Your task to perform on an android device: turn smart compose on in the gmail app Image 0: 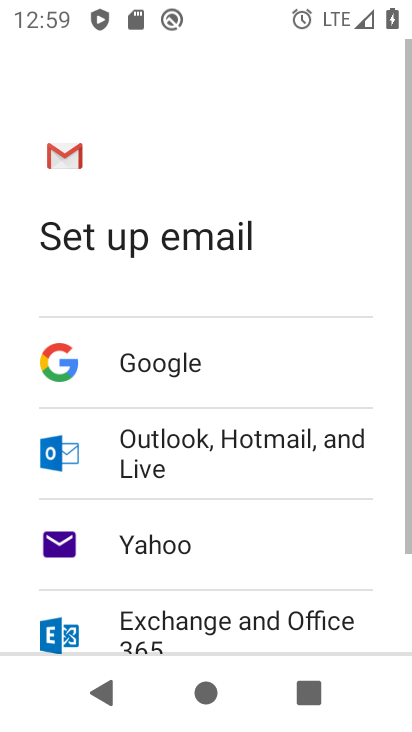
Step 0: press home button
Your task to perform on an android device: turn smart compose on in the gmail app Image 1: 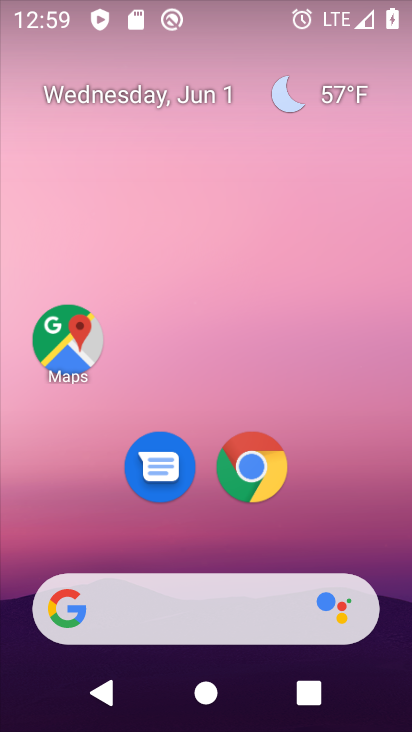
Step 1: drag from (376, 539) to (356, 153)
Your task to perform on an android device: turn smart compose on in the gmail app Image 2: 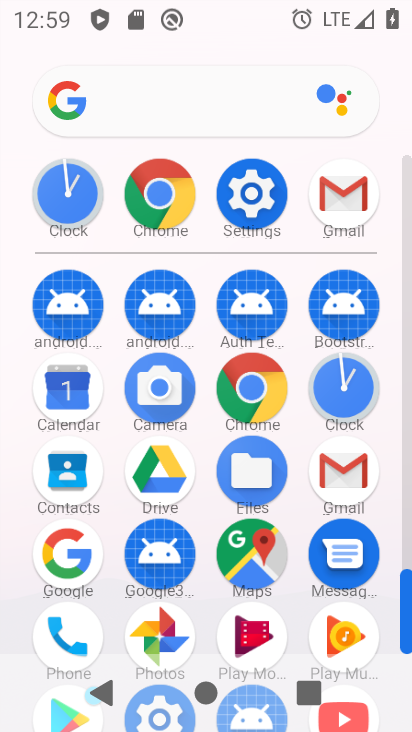
Step 2: click (366, 485)
Your task to perform on an android device: turn smart compose on in the gmail app Image 3: 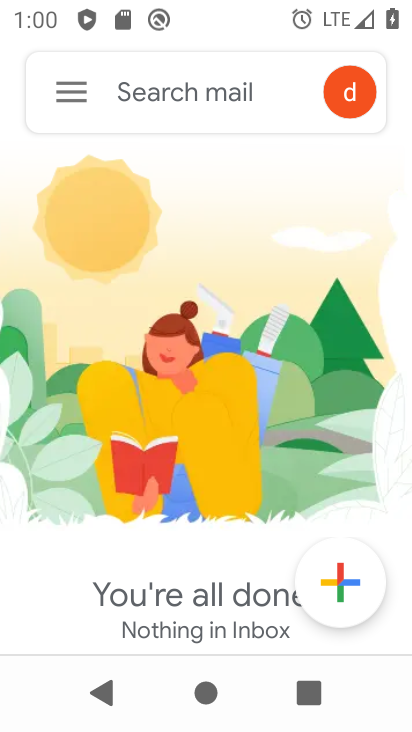
Step 3: click (80, 94)
Your task to perform on an android device: turn smart compose on in the gmail app Image 4: 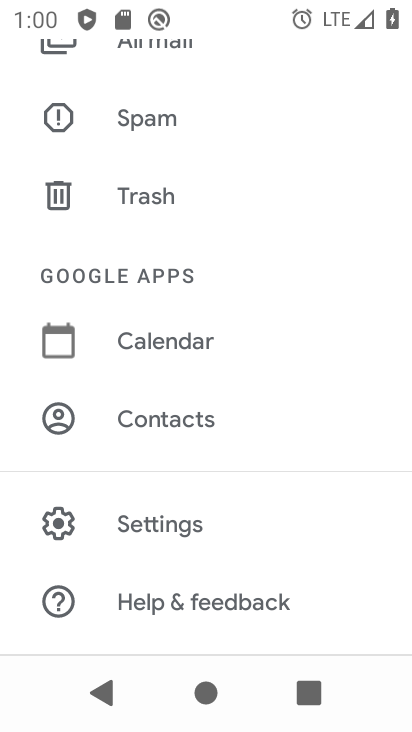
Step 4: drag from (309, 249) to (314, 408)
Your task to perform on an android device: turn smart compose on in the gmail app Image 5: 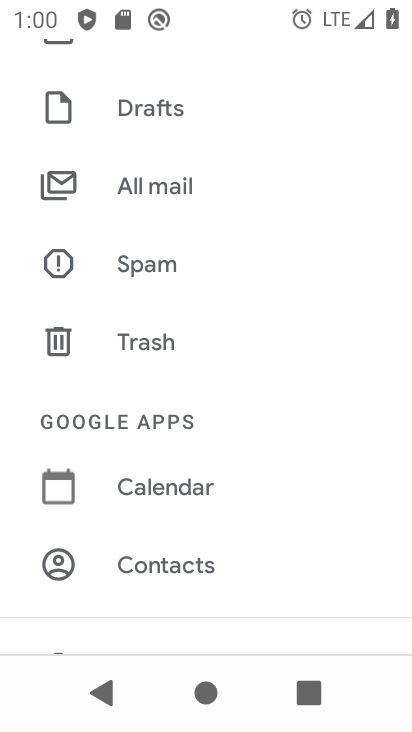
Step 5: drag from (298, 190) to (335, 393)
Your task to perform on an android device: turn smart compose on in the gmail app Image 6: 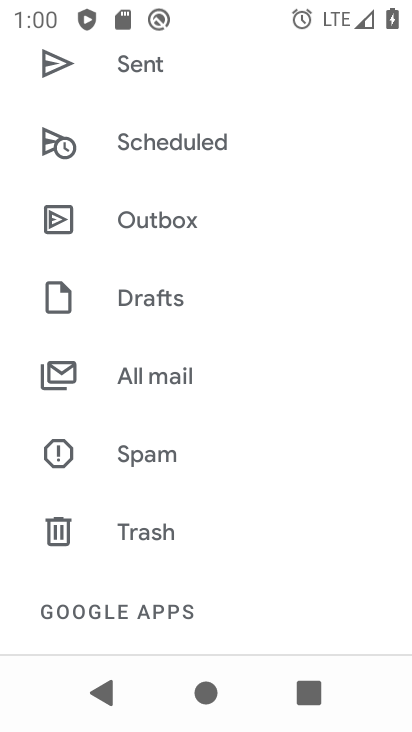
Step 6: drag from (335, 220) to (357, 404)
Your task to perform on an android device: turn smart compose on in the gmail app Image 7: 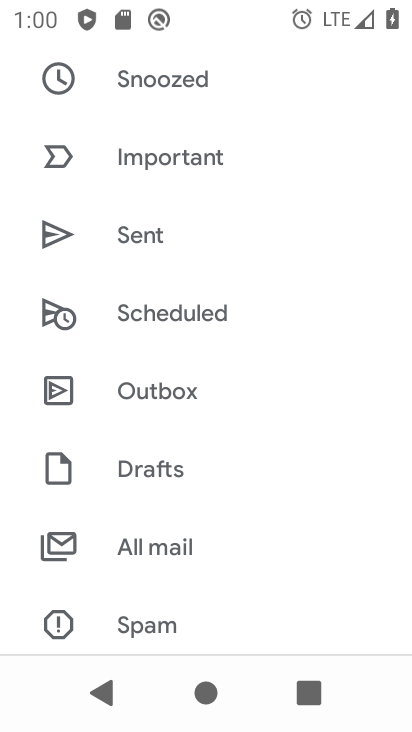
Step 7: drag from (351, 199) to (356, 375)
Your task to perform on an android device: turn smart compose on in the gmail app Image 8: 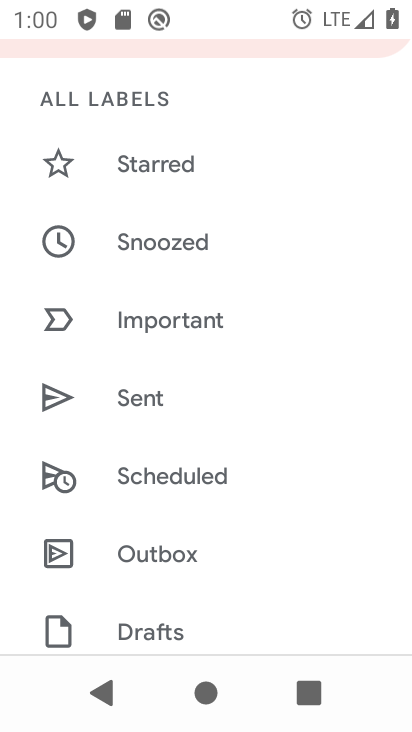
Step 8: drag from (315, 184) to (349, 411)
Your task to perform on an android device: turn smart compose on in the gmail app Image 9: 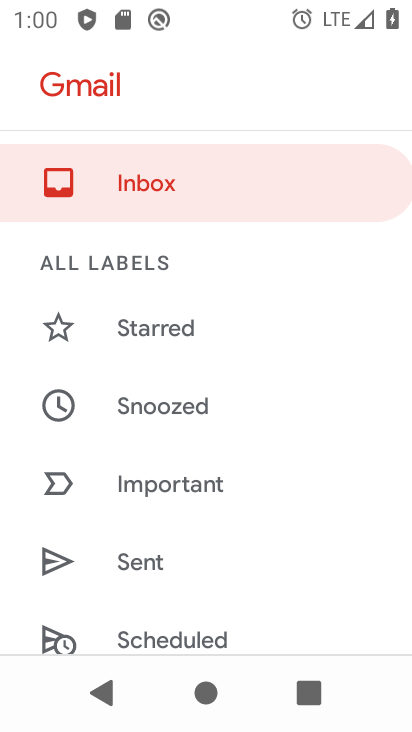
Step 9: drag from (355, 457) to (354, 335)
Your task to perform on an android device: turn smart compose on in the gmail app Image 10: 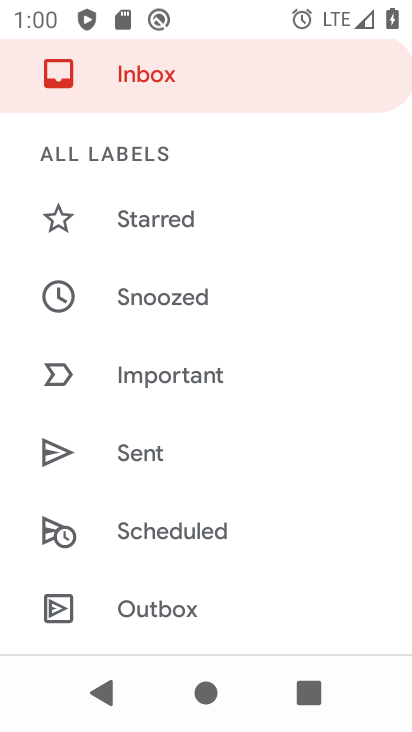
Step 10: drag from (351, 421) to (353, 310)
Your task to perform on an android device: turn smart compose on in the gmail app Image 11: 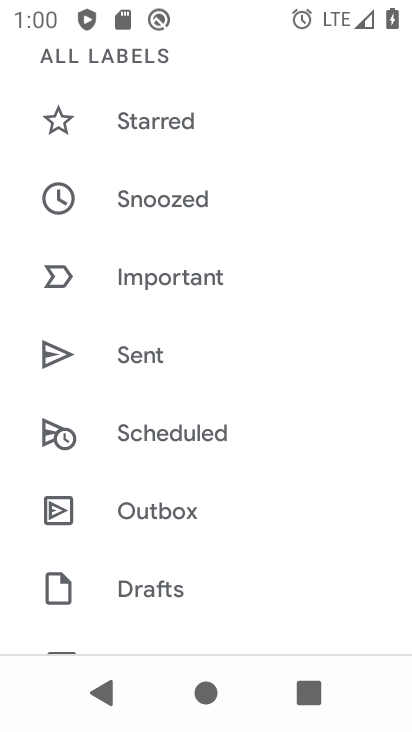
Step 11: drag from (343, 457) to (335, 226)
Your task to perform on an android device: turn smart compose on in the gmail app Image 12: 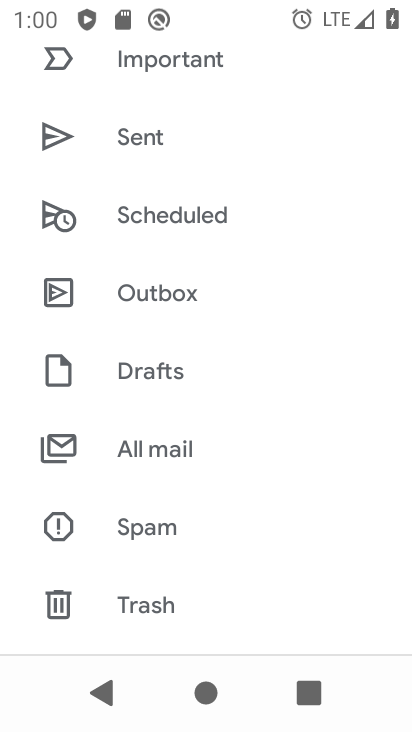
Step 12: drag from (311, 490) to (311, 314)
Your task to perform on an android device: turn smart compose on in the gmail app Image 13: 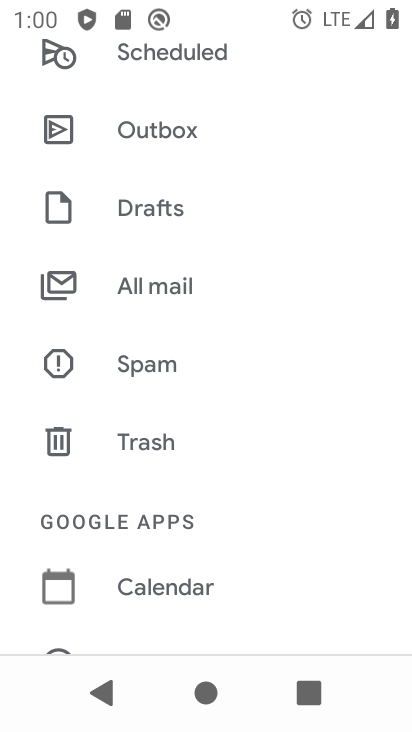
Step 13: drag from (333, 524) to (339, 296)
Your task to perform on an android device: turn smart compose on in the gmail app Image 14: 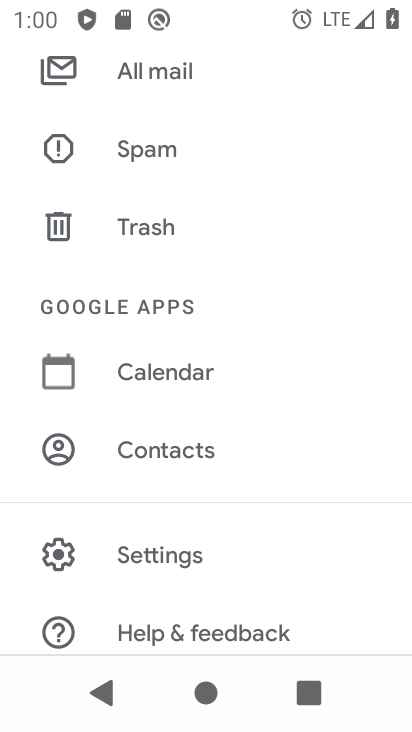
Step 14: click (197, 542)
Your task to perform on an android device: turn smart compose on in the gmail app Image 15: 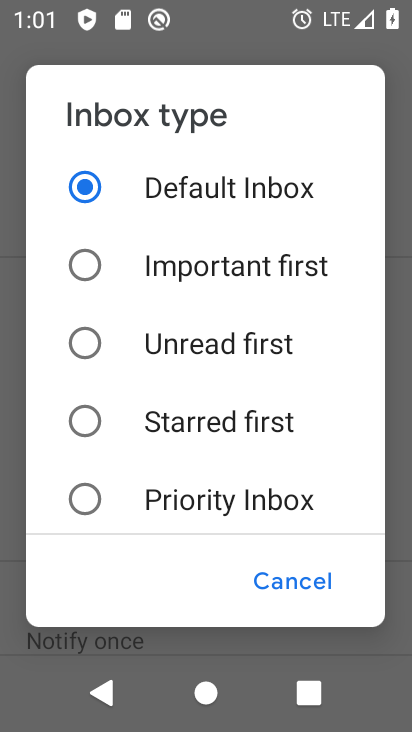
Step 15: task complete